Your task to perform on an android device: Go to Wikipedia Image 0: 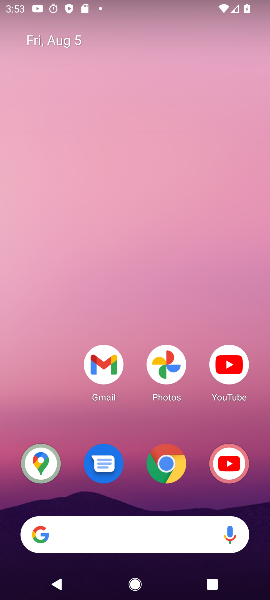
Step 0: drag from (152, 480) to (104, 84)
Your task to perform on an android device: Go to Wikipedia Image 1: 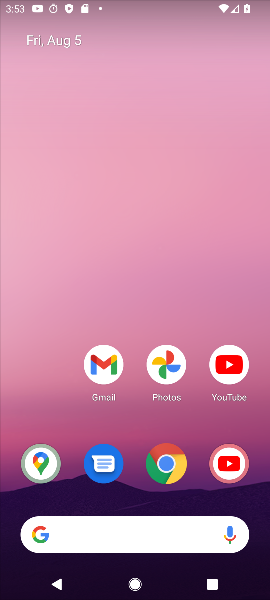
Step 1: drag from (167, 388) to (151, 141)
Your task to perform on an android device: Go to Wikipedia Image 2: 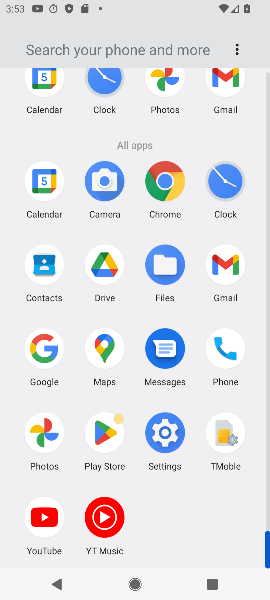
Step 2: drag from (182, 463) to (155, 224)
Your task to perform on an android device: Go to Wikipedia Image 3: 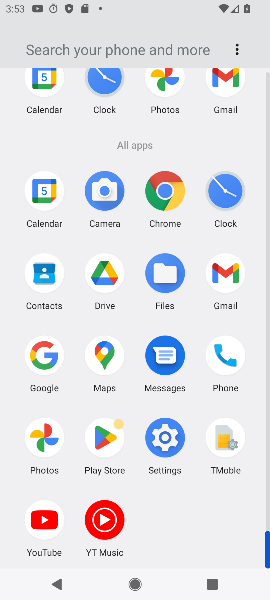
Step 3: click (166, 195)
Your task to perform on an android device: Go to Wikipedia Image 4: 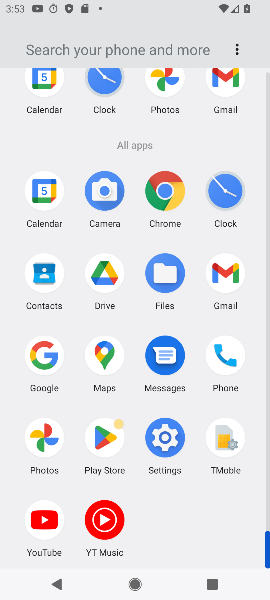
Step 4: click (166, 195)
Your task to perform on an android device: Go to Wikipedia Image 5: 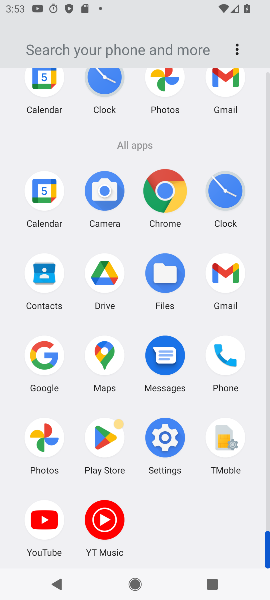
Step 5: click (168, 197)
Your task to perform on an android device: Go to Wikipedia Image 6: 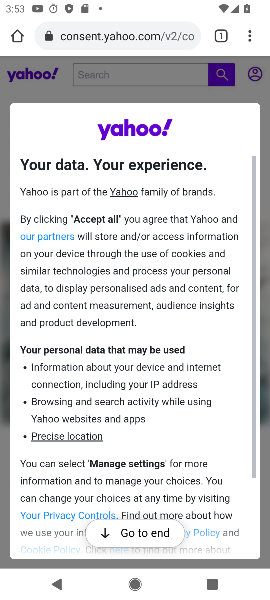
Step 6: drag from (249, 32) to (126, 70)
Your task to perform on an android device: Go to Wikipedia Image 7: 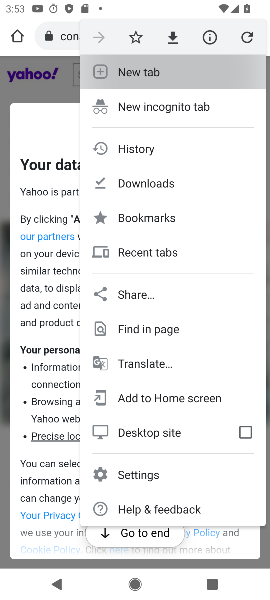
Step 7: click (126, 71)
Your task to perform on an android device: Go to Wikipedia Image 8: 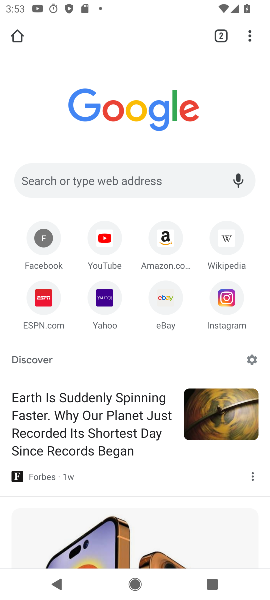
Step 8: click (228, 246)
Your task to perform on an android device: Go to Wikipedia Image 9: 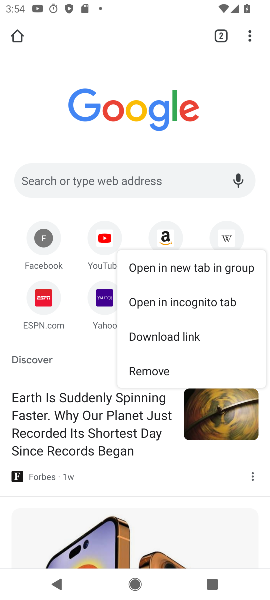
Step 9: click (224, 228)
Your task to perform on an android device: Go to Wikipedia Image 10: 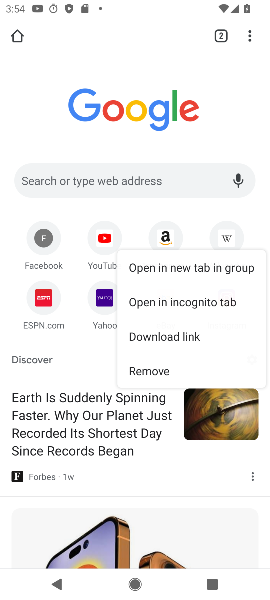
Step 10: click (226, 231)
Your task to perform on an android device: Go to Wikipedia Image 11: 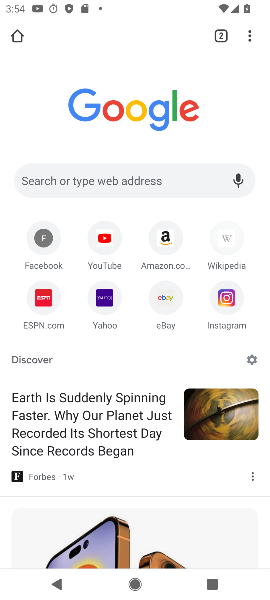
Step 11: click (227, 233)
Your task to perform on an android device: Go to Wikipedia Image 12: 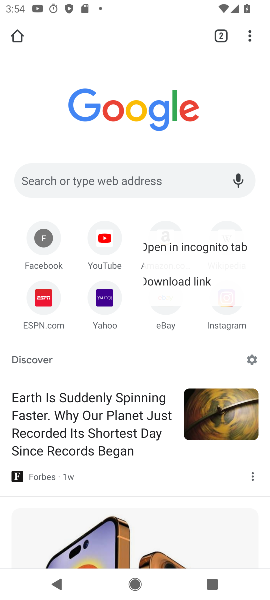
Step 12: click (227, 232)
Your task to perform on an android device: Go to Wikipedia Image 13: 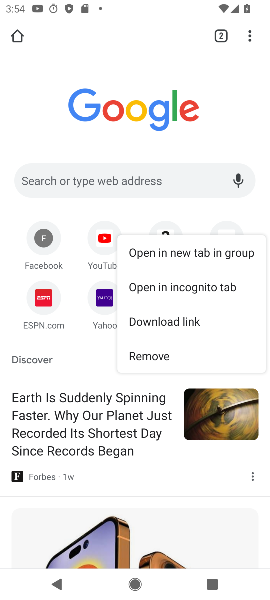
Step 13: click (228, 231)
Your task to perform on an android device: Go to Wikipedia Image 14: 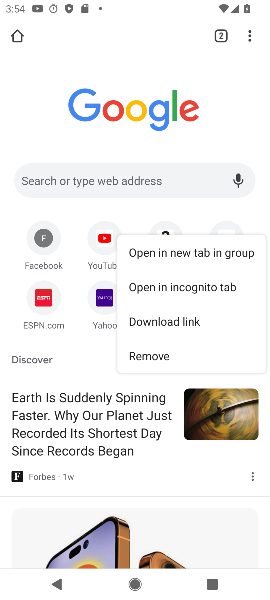
Step 14: click (227, 235)
Your task to perform on an android device: Go to Wikipedia Image 15: 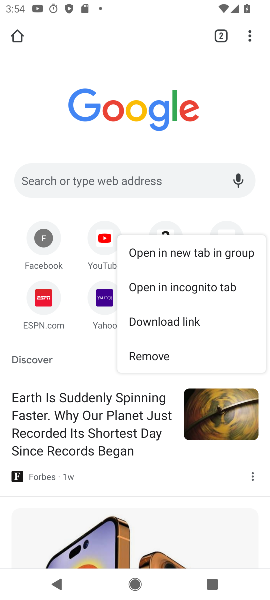
Step 15: click (226, 231)
Your task to perform on an android device: Go to Wikipedia Image 16: 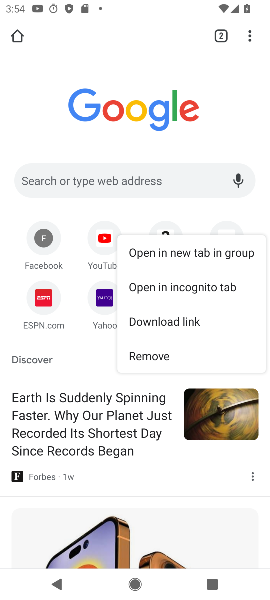
Step 16: click (227, 230)
Your task to perform on an android device: Go to Wikipedia Image 17: 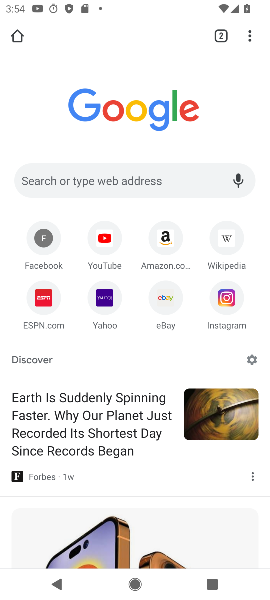
Step 17: click (228, 226)
Your task to perform on an android device: Go to Wikipedia Image 18: 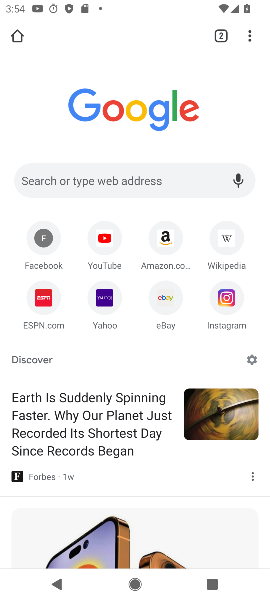
Step 18: click (228, 226)
Your task to perform on an android device: Go to Wikipedia Image 19: 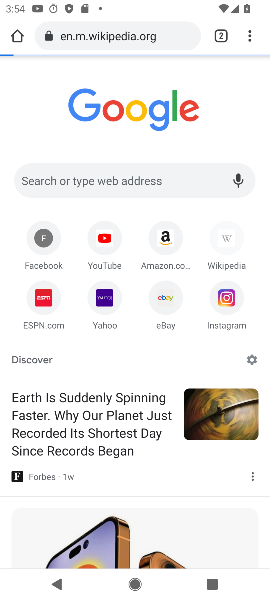
Step 19: click (230, 235)
Your task to perform on an android device: Go to Wikipedia Image 20: 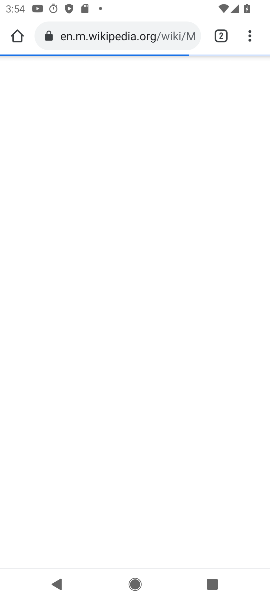
Step 20: click (230, 235)
Your task to perform on an android device: Go to Wikipedia Image 21: 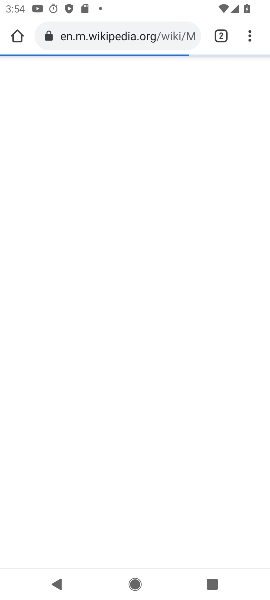
Step 21: click (230, 235)
Your task to perform on an android device: Go to Wikipedia Image 22: 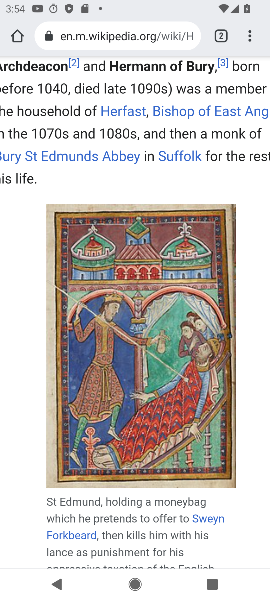
Step 22: task complete